Your task to perform on an android device: turn pop-ups on in chrome Image 0: 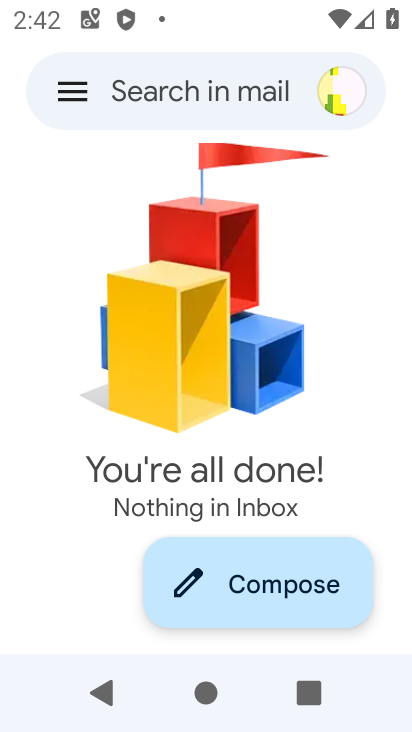
Step 0: press home button
Your task to perform on an android device: turn pop-ups on in chrome Image 1: 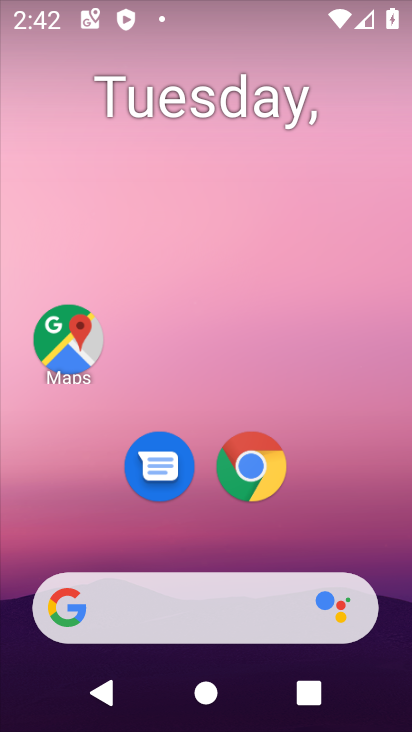
Step 1: click (270, 489)
Your task to perform on an android device: turn pop-ups on in chrome Image 2: 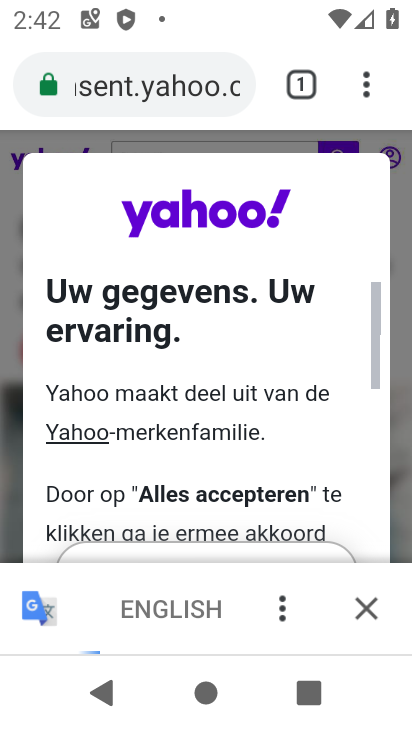
Step 2: click (370, 102)
Your task to perform on an android device: turn pop-ups on in chrome Image 3: 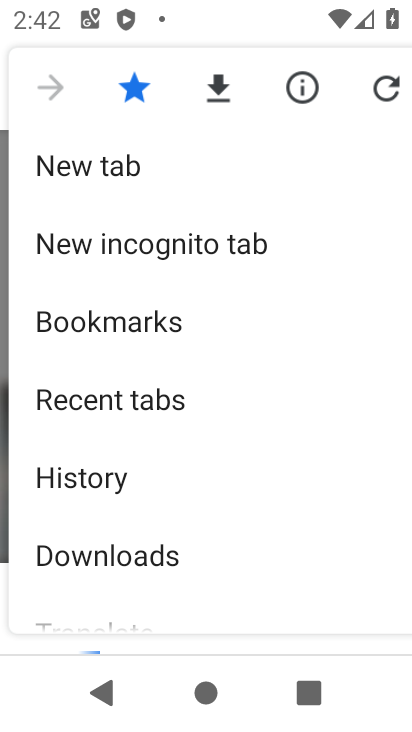
Step 3: click (258, 347)
Your task to perform on an android device: turn pop-ups on in chrome Image 4: 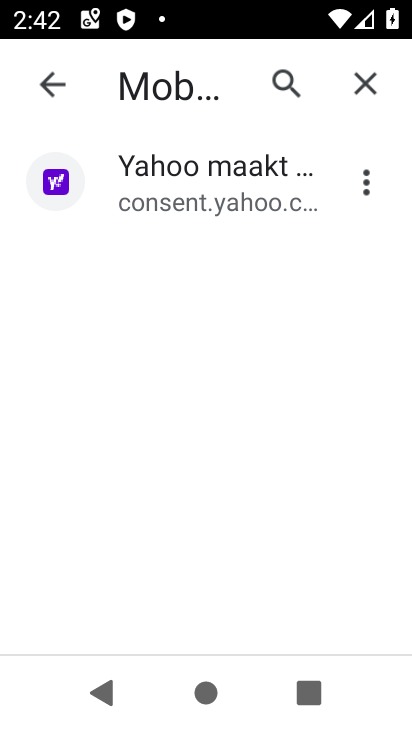
Step 4: task complete